Your task to perform on an android device: turn on the 12-hour format for clock Image 0: 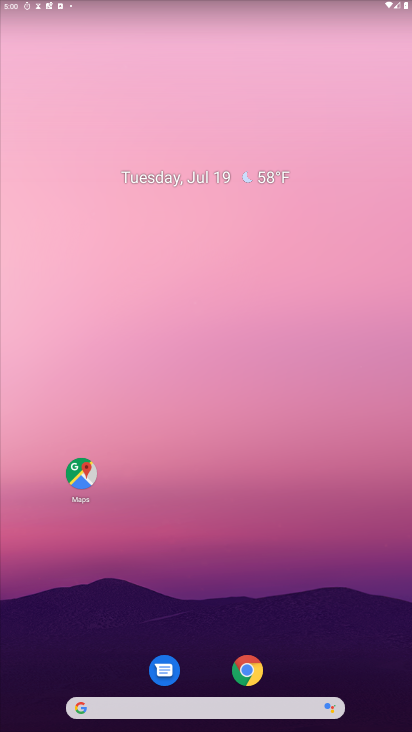
Step 0: drag from (228, 706) to (185, 36)
Your task to perform on an android device: turn on the 12-hour format for clock Image 1: 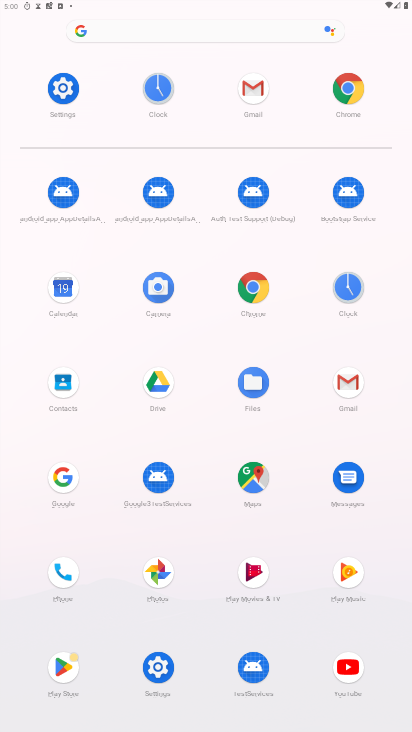
Step 1: click (352, 283)
Your task to perform on an android device: turn on the 12-hour format for clock Image 2: 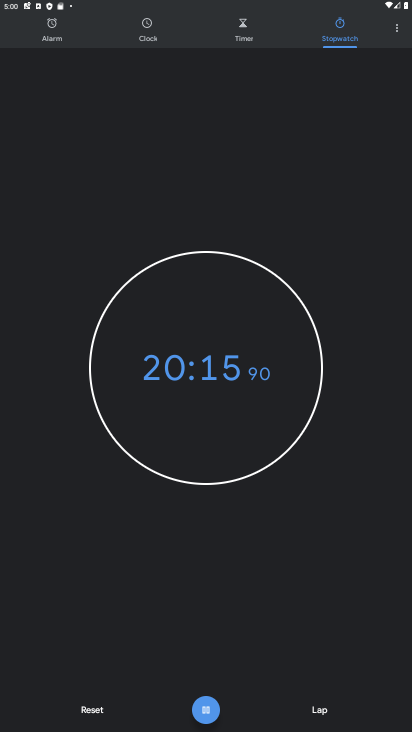
Step 2: click (400, 27)
Your task to perform on an android device: turn on the 12-hour format for clock Image 3: 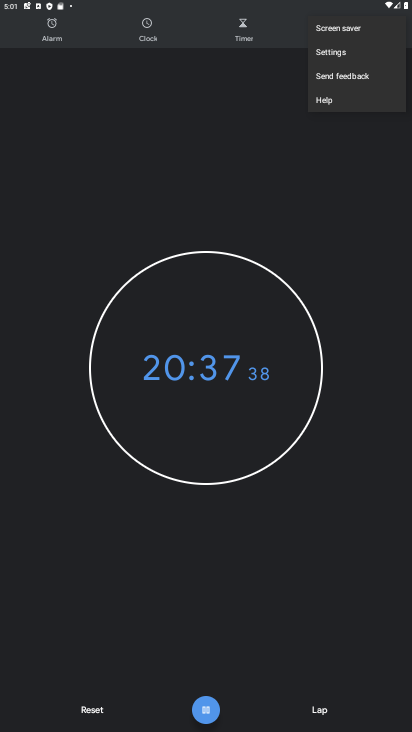
Step 3: click (343, 52)
Your task to perform on an android device: turn on the 12-hour format for clock Image 4: 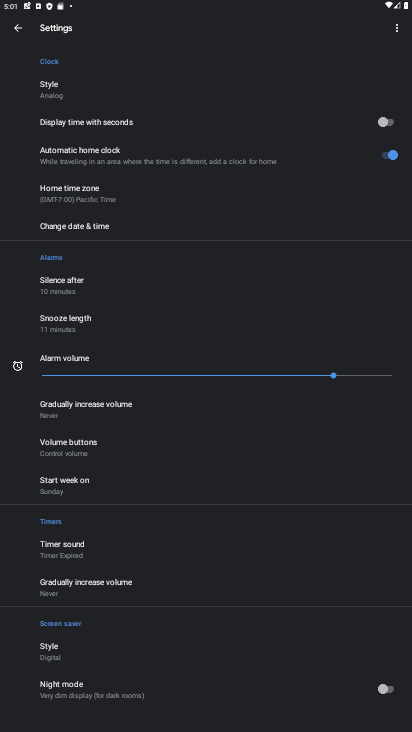
Step 4: click (112, 227)
Your task to perform on an android device: turn on the 12-hour format for clock Image 5: 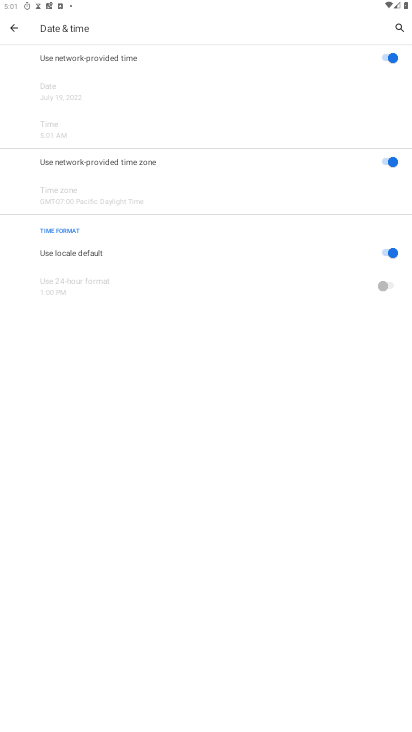
Step 5: click (386, 251)
Your task to perform on an android device: turn on the 12-hour format for clock Image 6: 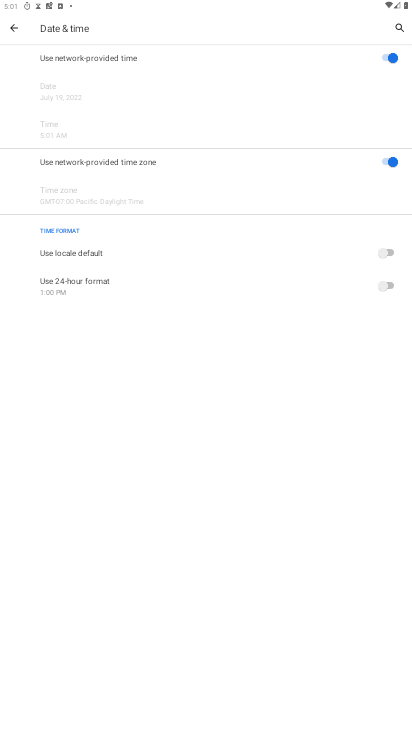
Step 6: task complete